Your task to perform on an android device: Is it going to rain this weekend? Image 0: 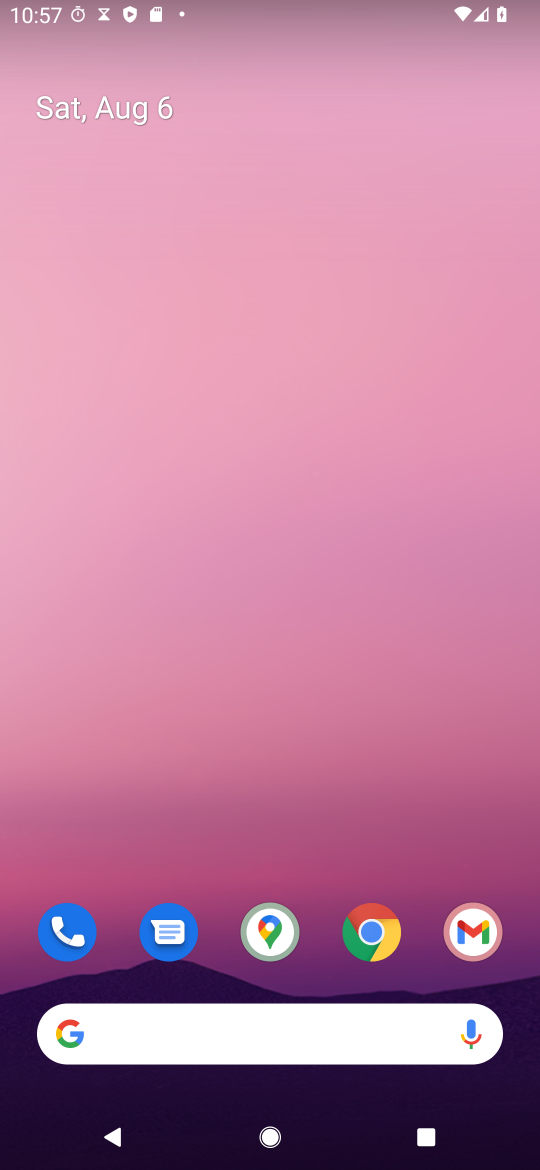
Step 0: click (370, 934)
Your task to perform on an android device: Is it going to rain this weekend? Image 1: 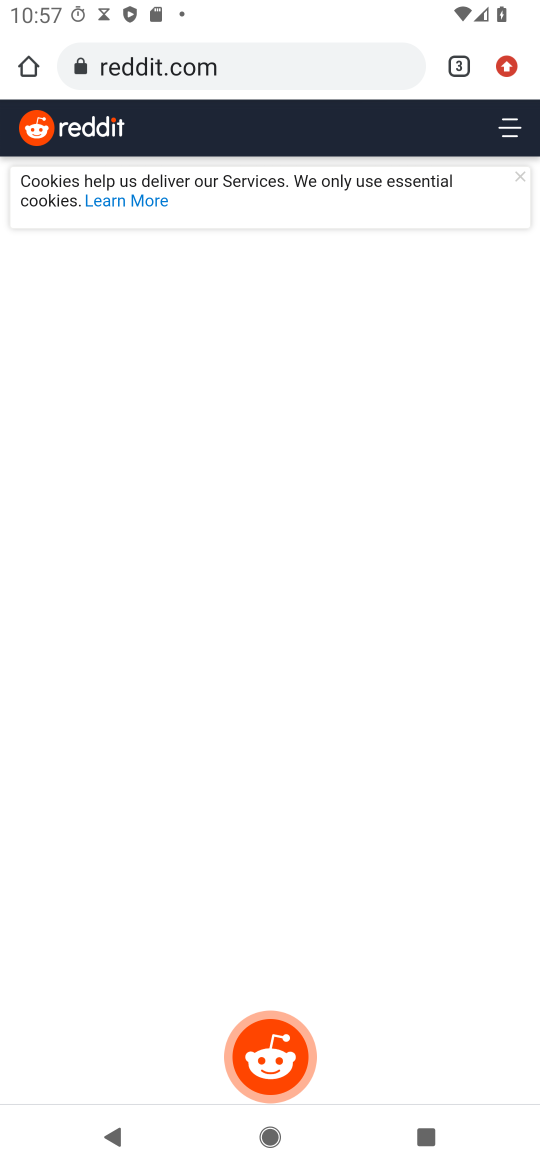
Step 1: click (305, 94)
Your task to perform on an android device: Is it going to rain this weekend? Image 2: 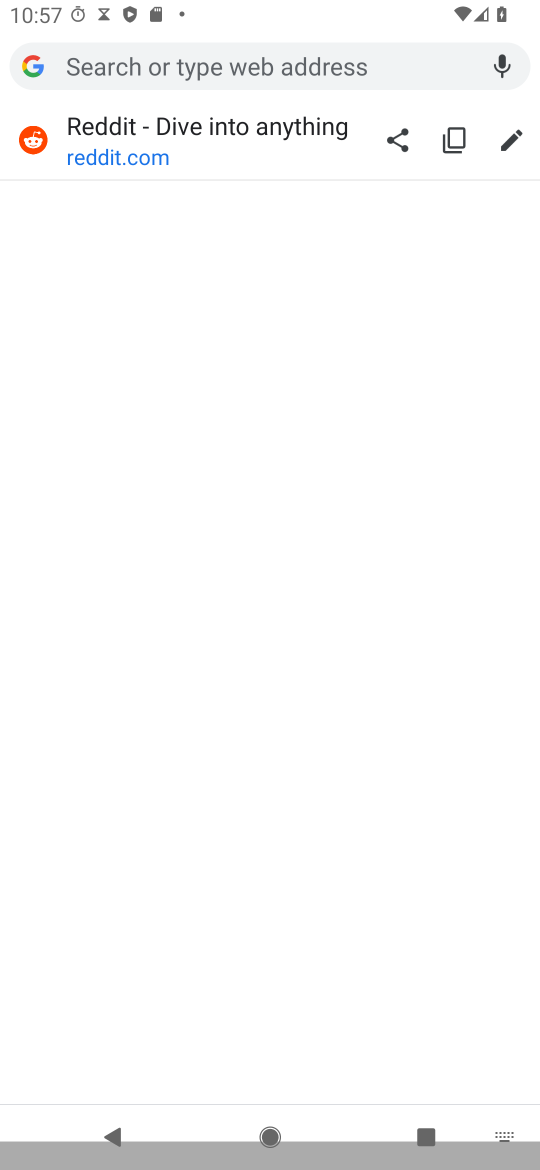
Step 2: click (307, 80)
Your task to perform on an android device: Is it going to rain this weekend? Image 3: 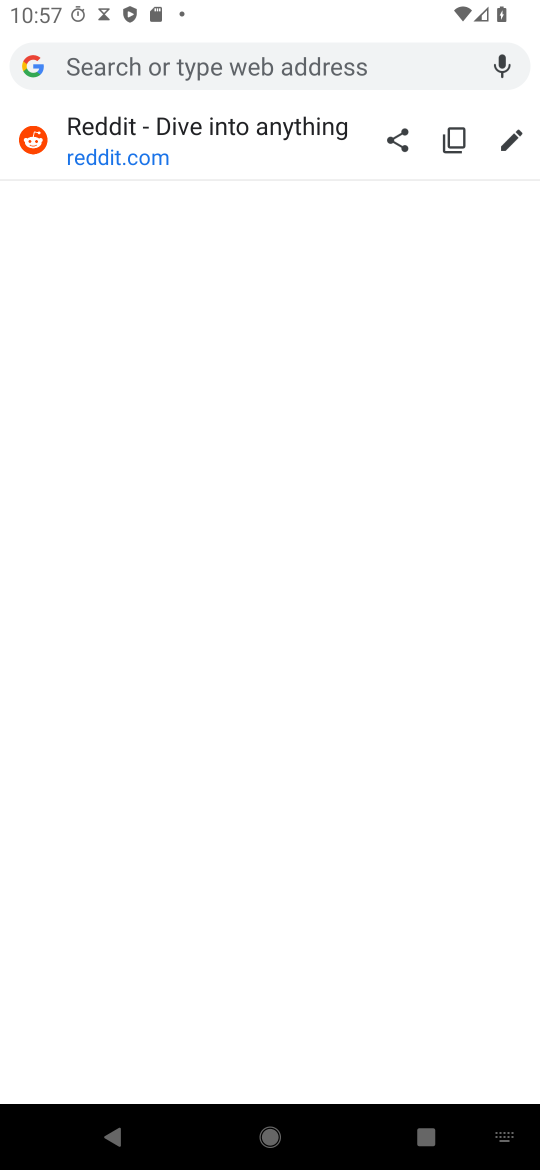
Step 3: type "Is it going to rain this weekend?"
Your task to perform on an android device: Is it going to rain this weekend? Image 4: 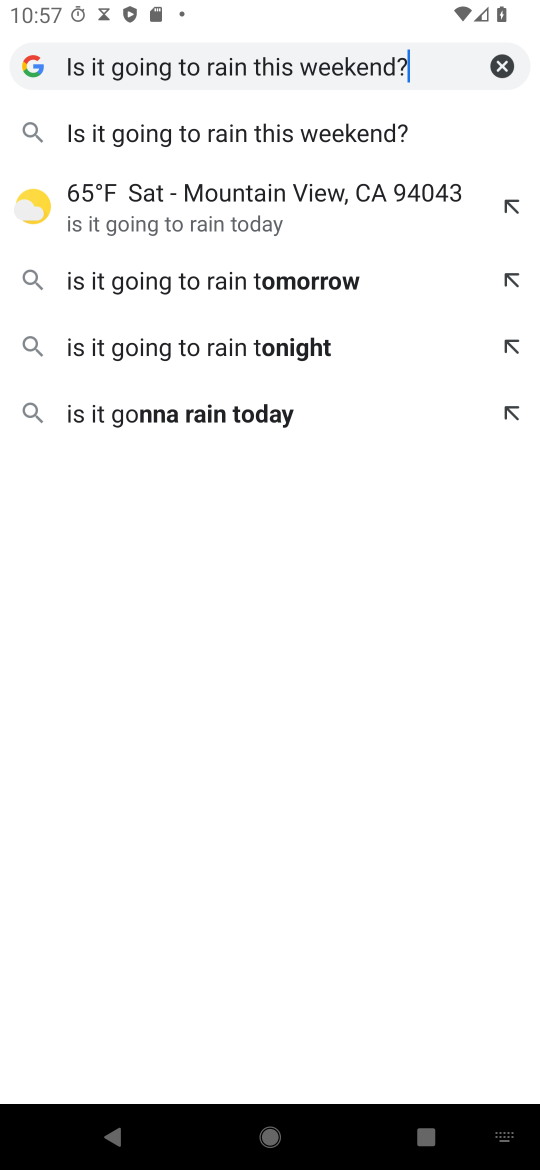
Step 4: type ""
Your task to perform on an android device: Is it going to rain this weekend? Image 5: 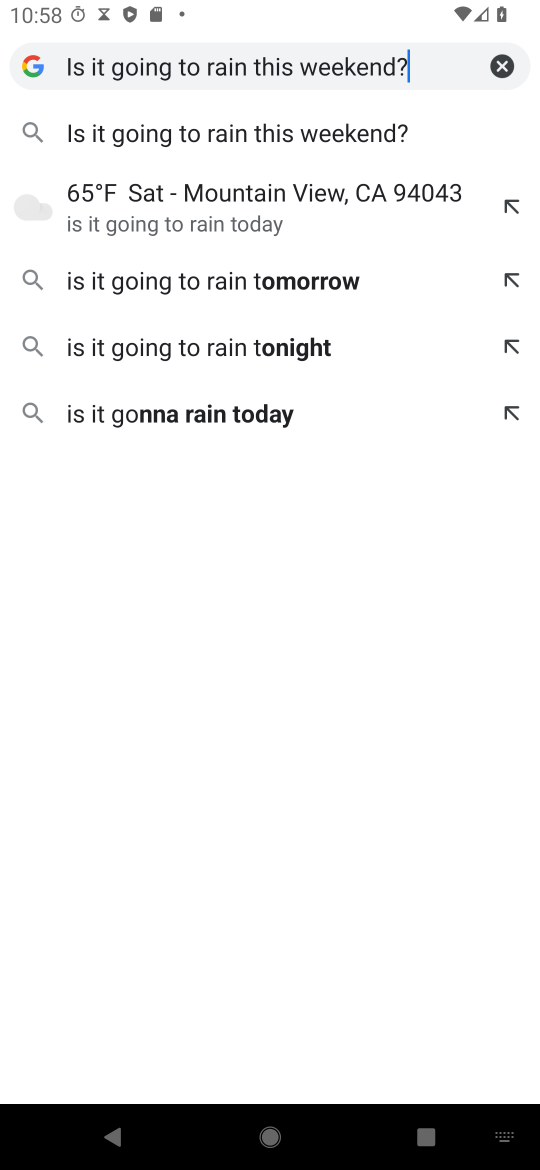
Step 5: click (257, 122)
Your task to perform on an android device: Is it going to rain this weekend? Image 6: 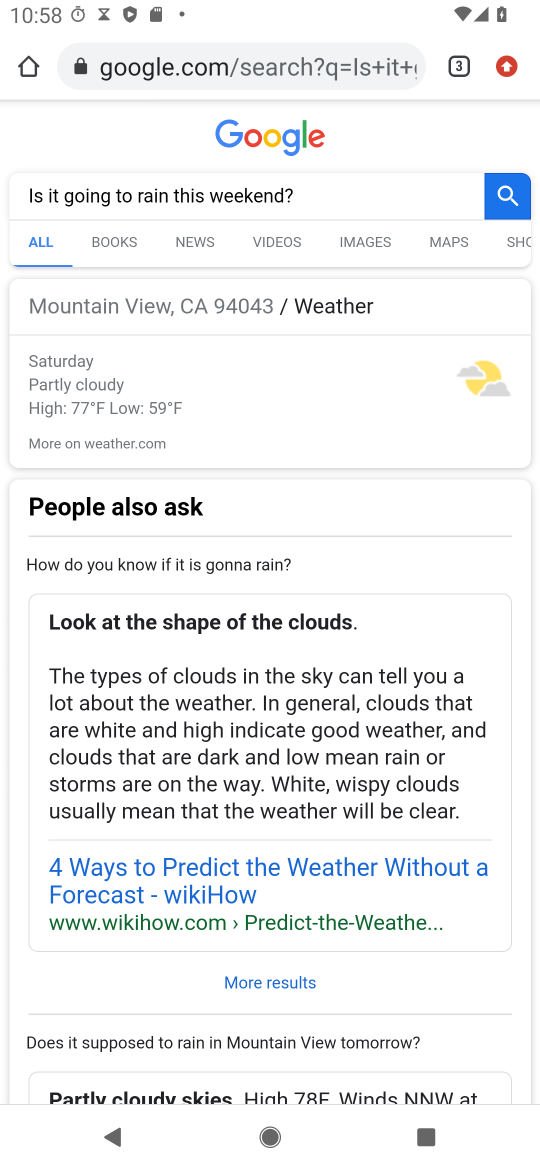
Step 6: task complete